Your task to perform on an android device: What's on my calendar today? Image 0: 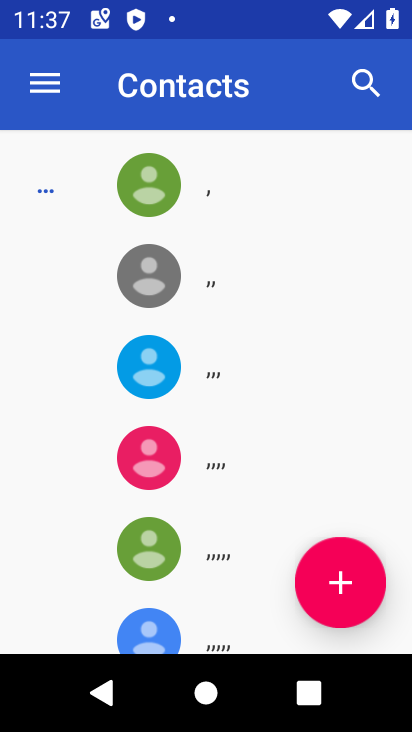
Step 0: press home button
Your task to perform on an android device: What's on my calendar today? Image 1: 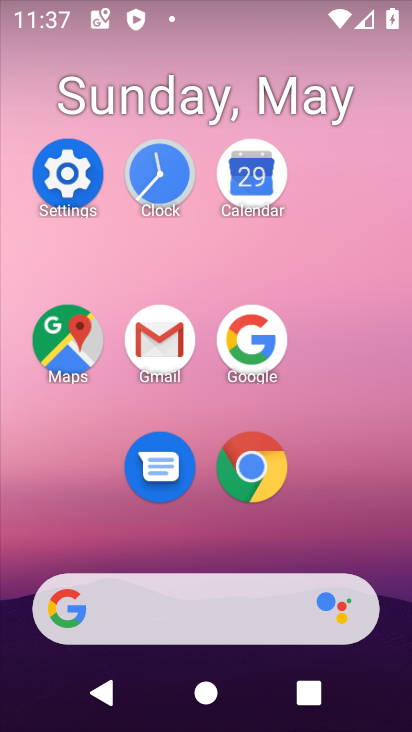
Step 1: click (243, 151)
Your task to perform on an android device: What's on my calendar today? Image 2: 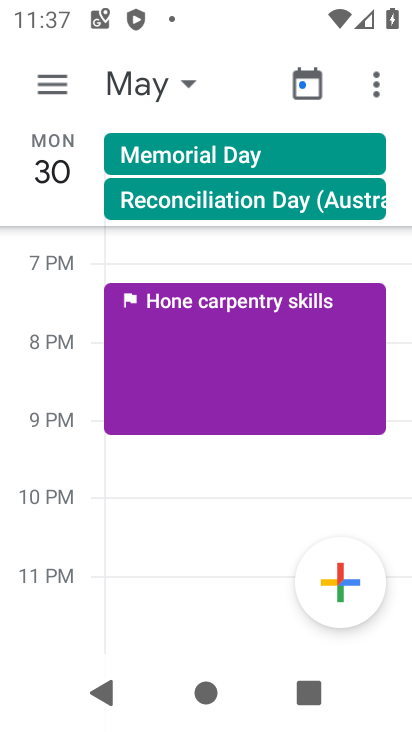
Step 2: task complete